Your task to perform on an android device: Open the calendar and show me this week's events Image 0: 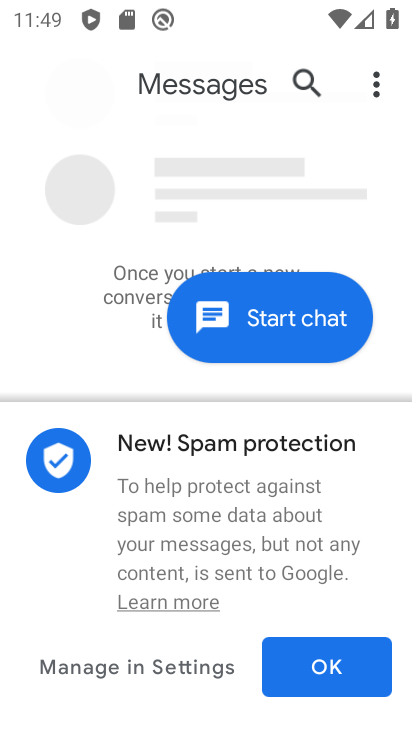
Step 0: press home button
Your task to perform on an android device: Open the calendar and show me this week's events Image 1: 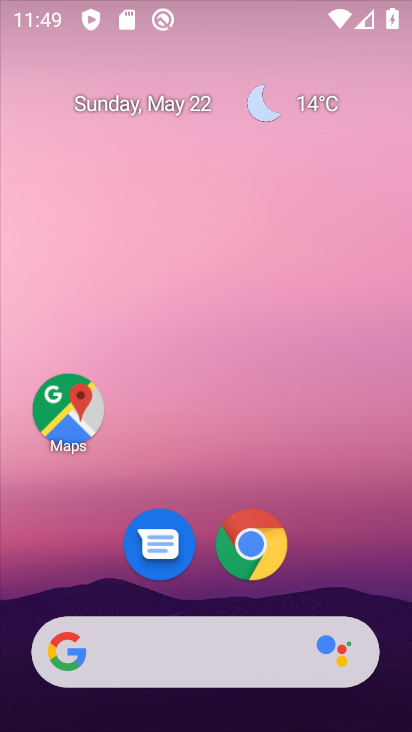
Step 1: drag from (276, 483) to (283, 93)
Your task to perform on an android device: Open the calendar and show me this week's events Image 2: 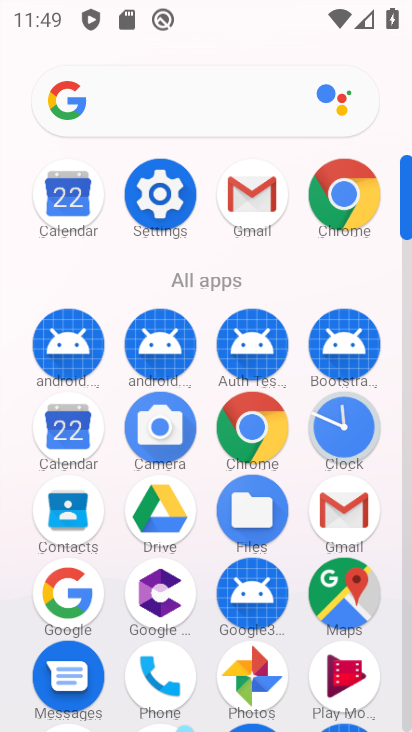
Step 2: click (60, 419)
Your task to perform on an android device: Open the calendar and show me this week's events Image 3: 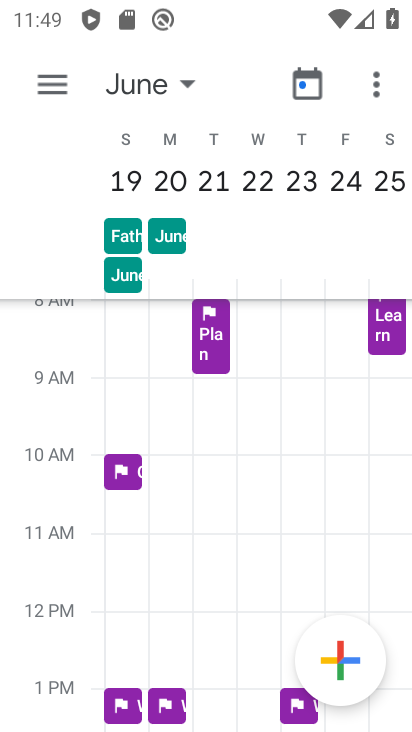
Step 3: click (117, 87)
Your task to perform on an android device: Open the calendar and show me this week's events Image 4: 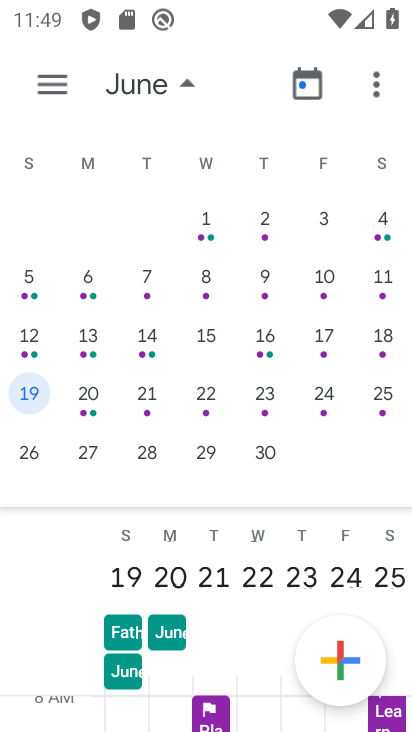
Step 4: drag from (46, 288) to (380, 294)
Your task to perform on an android device: Open the calendar and show me this week's events Image 5: 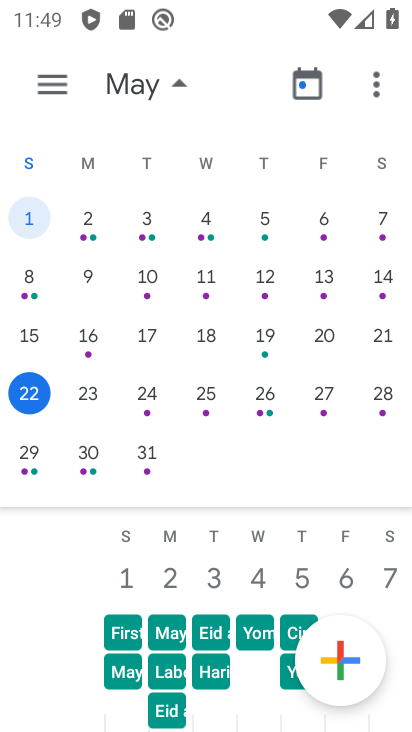
Step 5: click (40, 396)
Your task to perform on an android device: Open the calendar and show me this week's events Image 6: 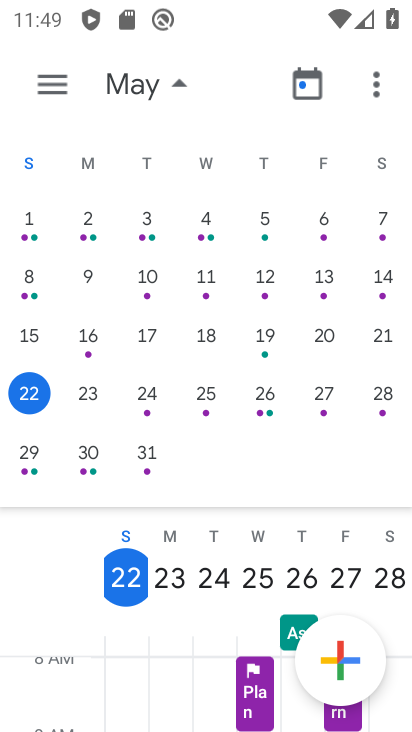
Step 6: task complete